Your task to perform on an android device: Open network settings Image 0: 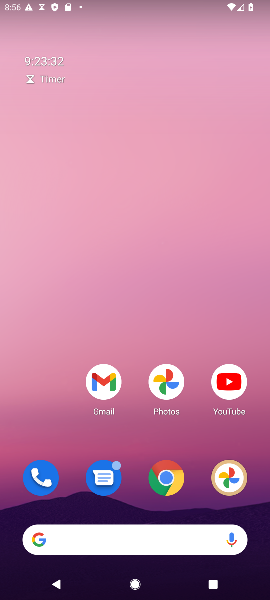
Step 0: drag from (183, 344) to (138, 107)
Your task to perform on an android device: Open network settings Image 1: 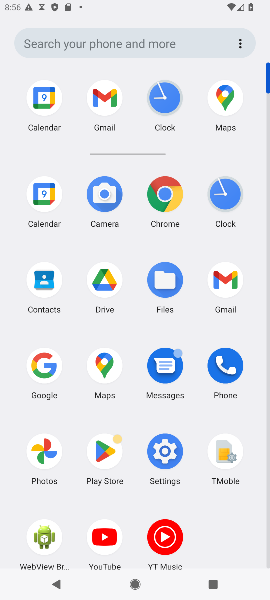
Step 1: click (166, 437)
Your task to perform on an android device: Open network settings Image 2: 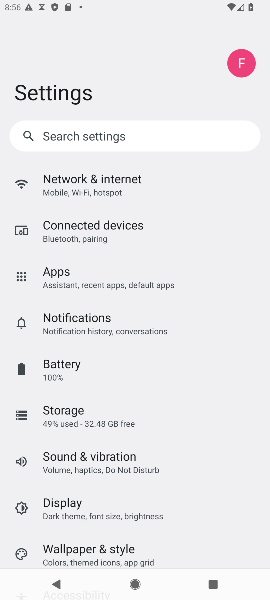
Step 2: click (63, 192)
Your task to perform on an android device: Open network settings Image 3: 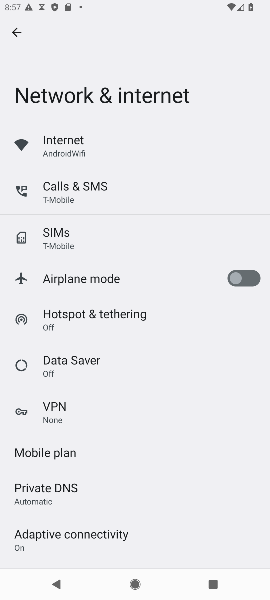
Step 3: task complete